Your task to perform on an android device: Do I have any events tomorrow? Image 0: 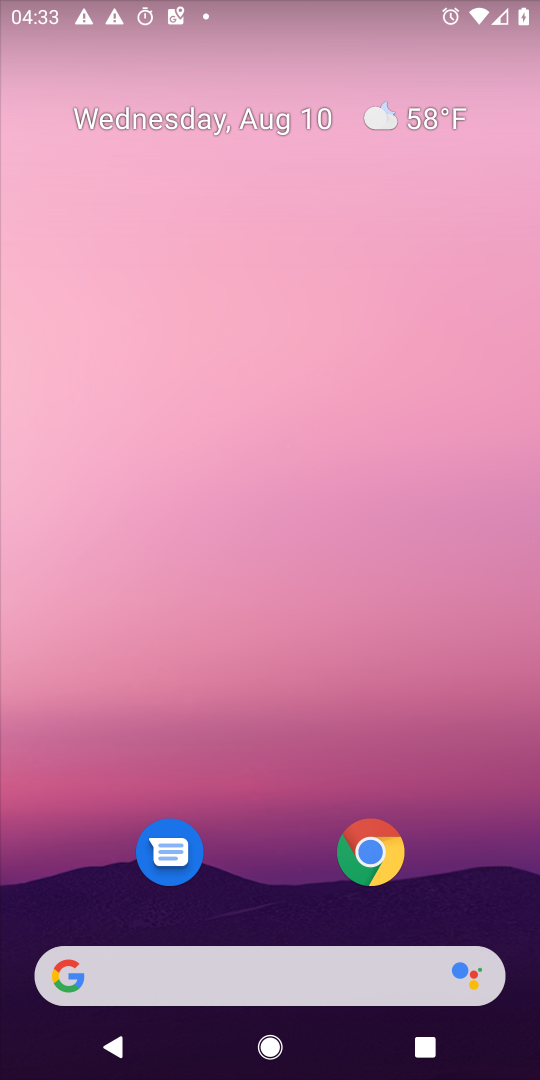
Step 0: drag from (262, 816) to (217, 25)
Your task to perform on an android device: Do I have any events tomorrow? Image 1: 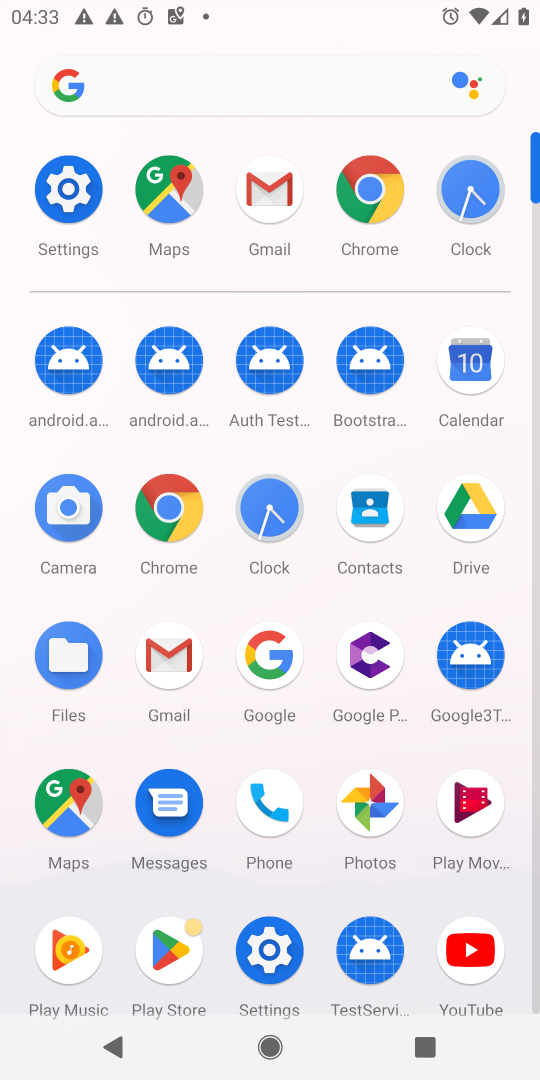
Step 1: click (474, 365)
Your task to perform on an android device: Do I have any events tomorrow? Image 2: 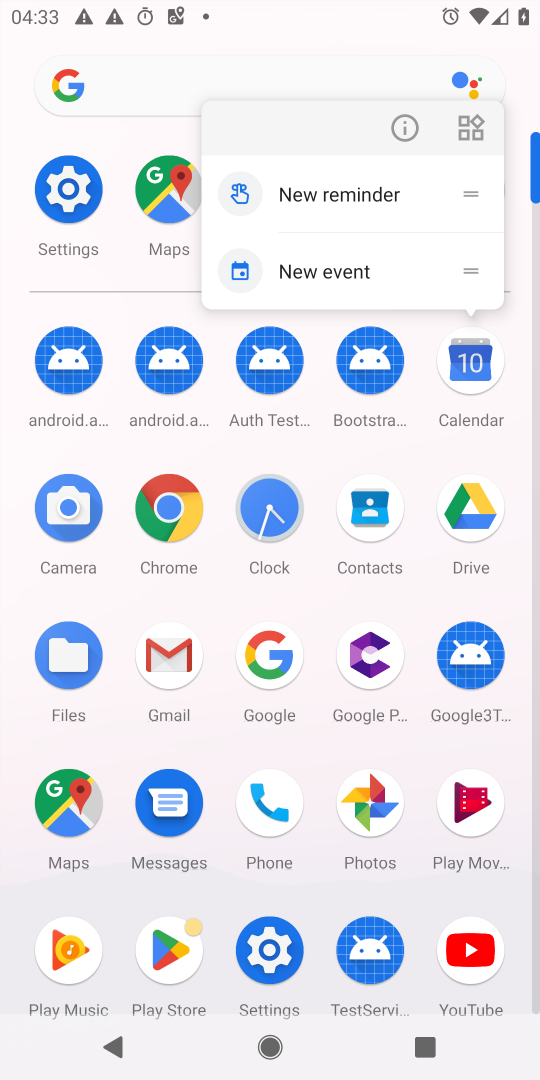
Step 2: click (474, 365)
Your task to perform on an android device: Do I have any events tomorrow? Image 3: 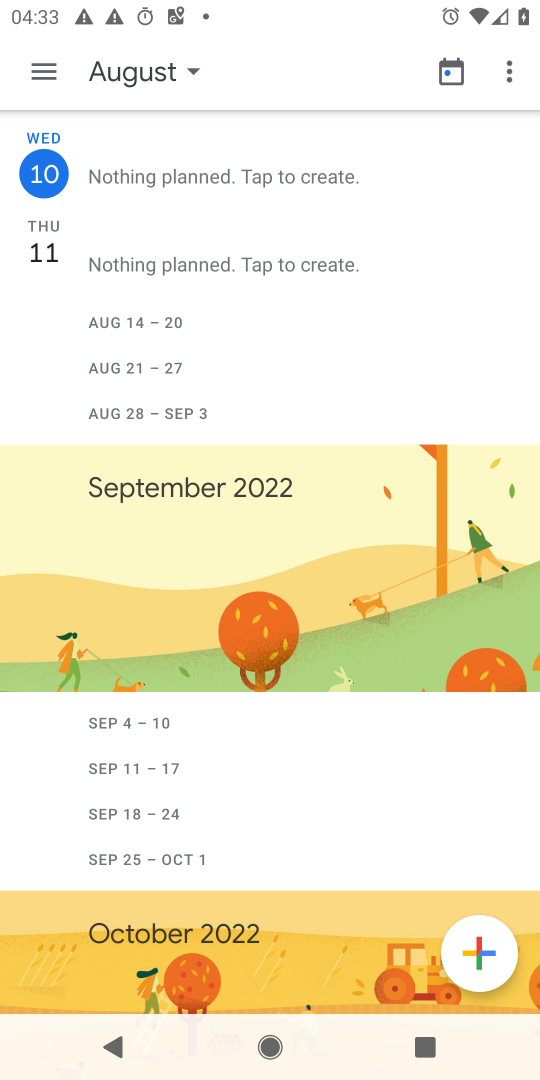
Step 3: click (78, 263)
Your task to perform on an android device: Do I have any events tomorrow? Image 4: 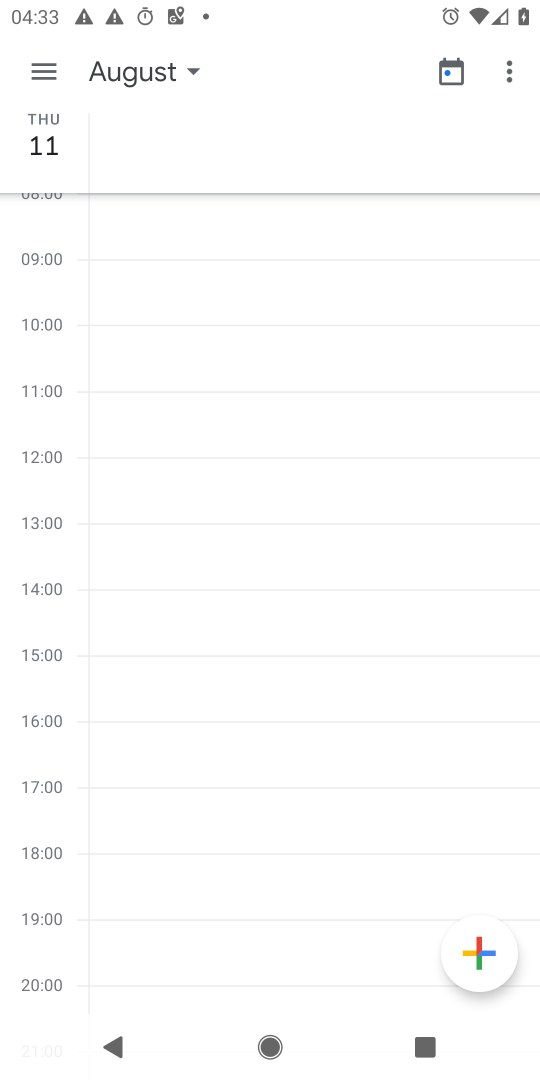
Step 4: task complete